Your task to perform on an android device: What is the news today? Image 0: 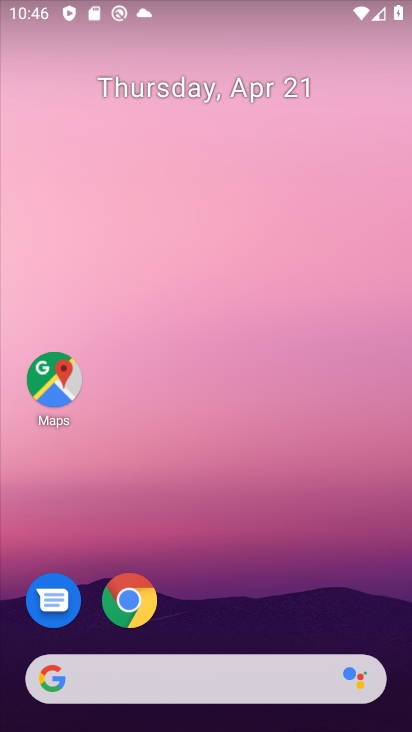
Step 0: drag from (354, 410) to (330, 60)
Your task to perform on an android device: What is the news today? Image 1: 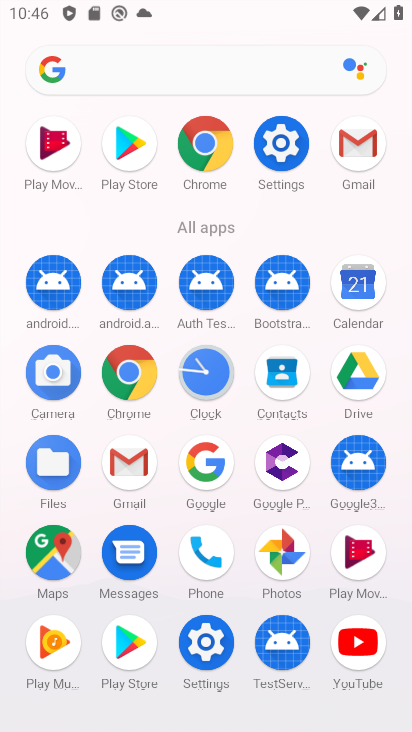
Step 1: click (206, 154)
Your task to perform on an android device: What is the news today? Image 2: 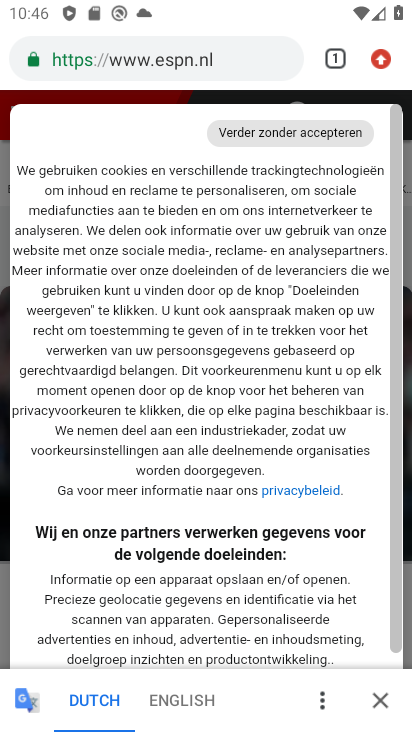
Step 2: click (389, 68)
Your task to perform on an android device: What is the news today? Image 3: 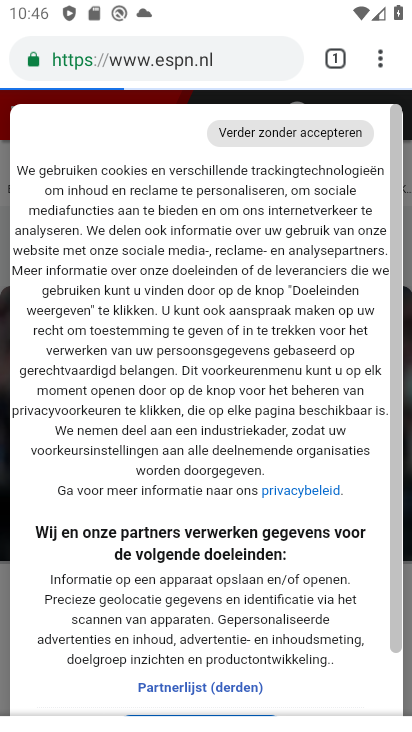
Step 3: task complete